Your task to perform on an android device: turn pop-ups on in chrome Image 0: 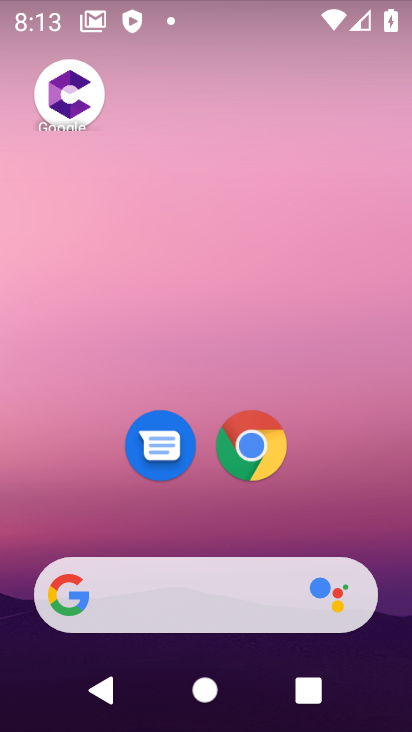
Step 0: click (255, 441)
Your task to perform on an android device: turn pop-ups on in chrome Image 1: 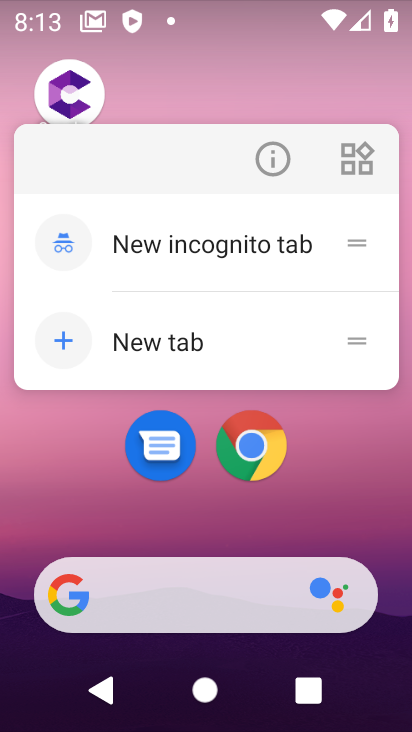
Step 1: click (240, 453)
Your task to perform on an android device: turn pop-ups on in chrome Image 2: 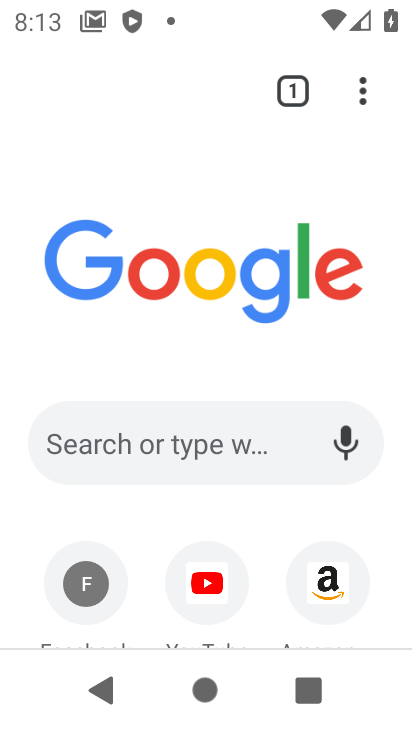
Step 2: click (367, 83)
Your task to perform on an android device: turn pop-ups on in chrome Image 3: 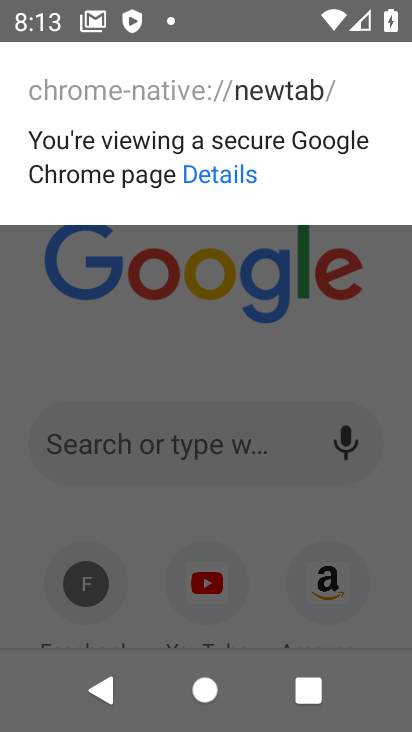
Step 3: click (340, 313)
Your task to perform on an android device: turn pop-ups on in chrome Image 4: 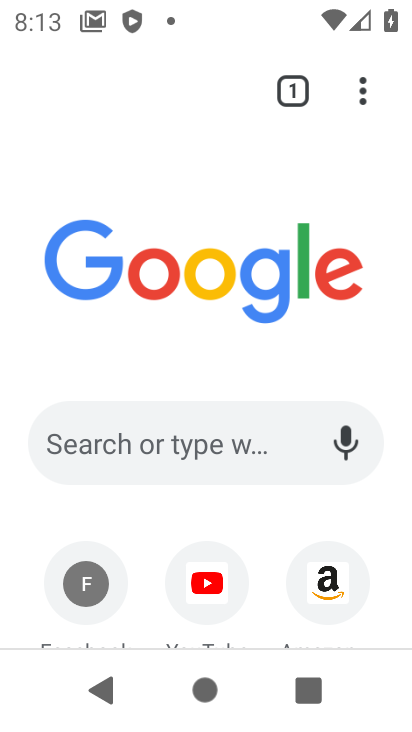
Step 4: click (369, 83)
Your task to perform on an android device: turn pop-ups on in chrome Image 5: 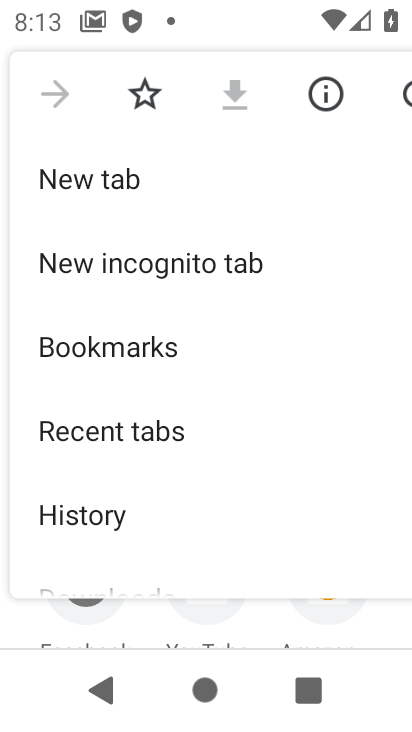
Step 5: drag from (183, 491) to (207, 192)
Your task to perform on an android device: turn pop-ups on in chrome Image 6: 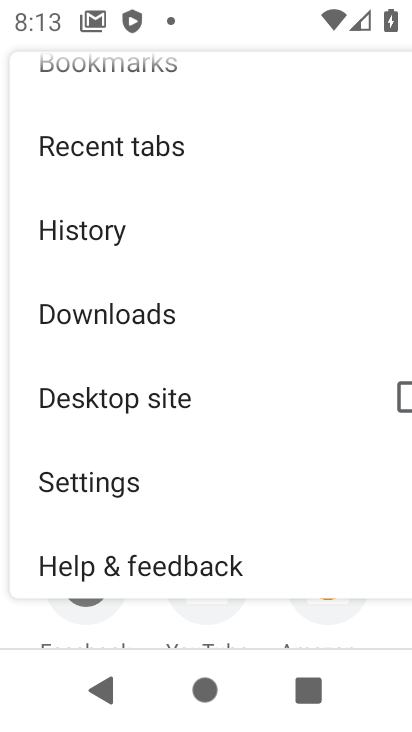
Step 6: click (92, 490)
Your task to perform on an android device: turn pop-ups on in chrome Image 7: 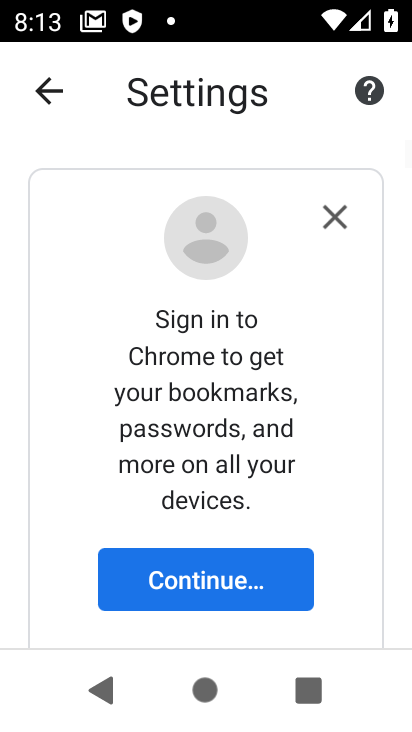
Step 7: click (335, 205)
Your task to perform on an android device: turn pop-ups on in chrome Image 8: 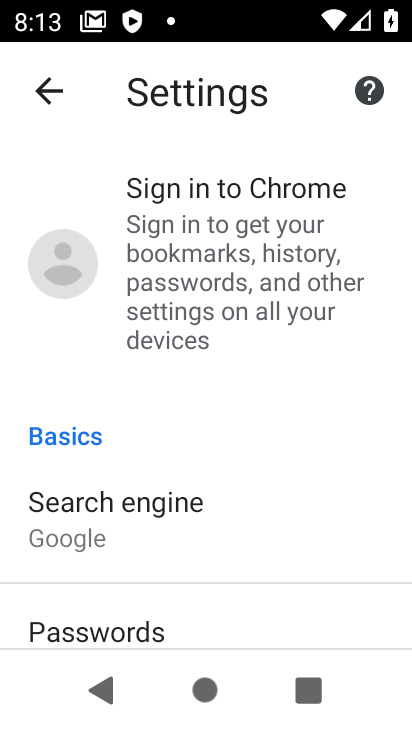
Step 8: drag from (137, 564) to (196, 202)
Your task to perform on an android device: turn pop-ups on in chrome Image 9: 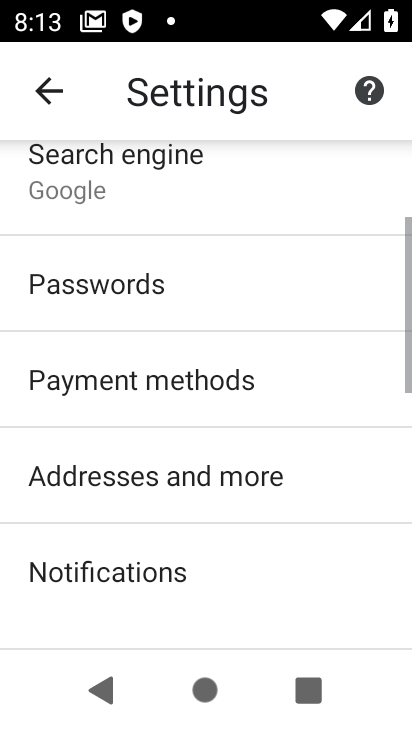
Step 9: drag from (170, 526) to (232, 231)
Your task to perform on an android device: turn pop-ups on in chrome Image 10: 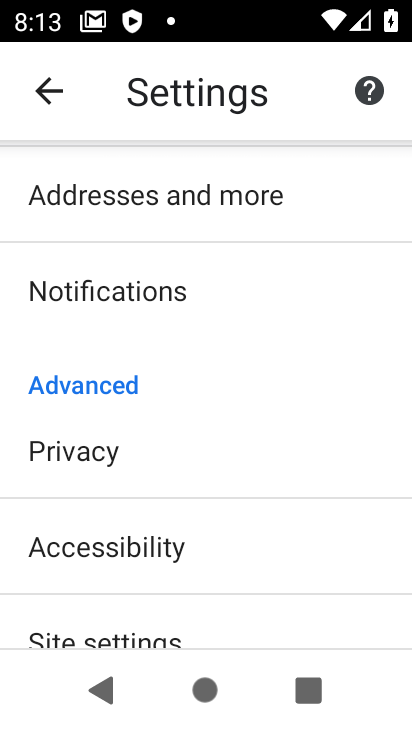
Step 10: drag from (91, 579) to (164, 305)
Your task to perform on an android device: turn pop-ups on in chrome Image 11: 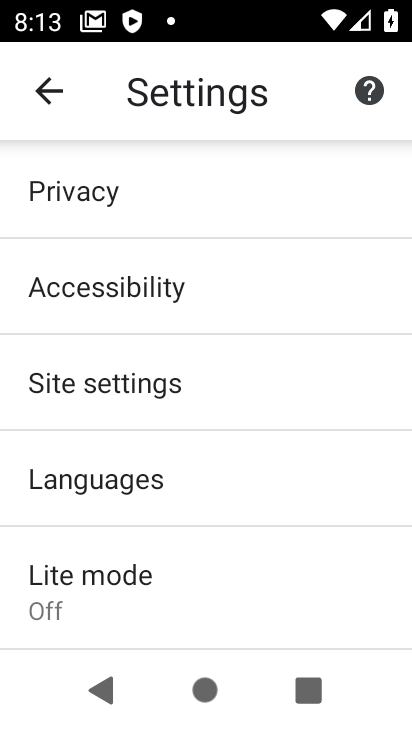
Step 11: click (116, 367)
Your task to perform on an android device: turn pop-ups on in chrome Image 12: 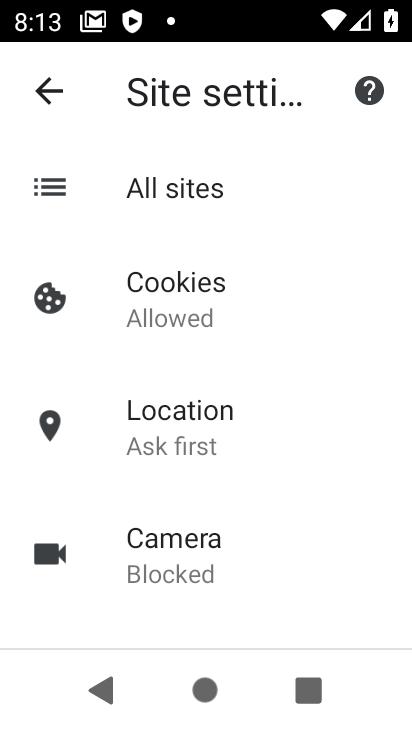
Step 12: drag from (184, 595) to (227, 283)
Your task to perform on an android device: turn pop-ups on in chrome Image 13: 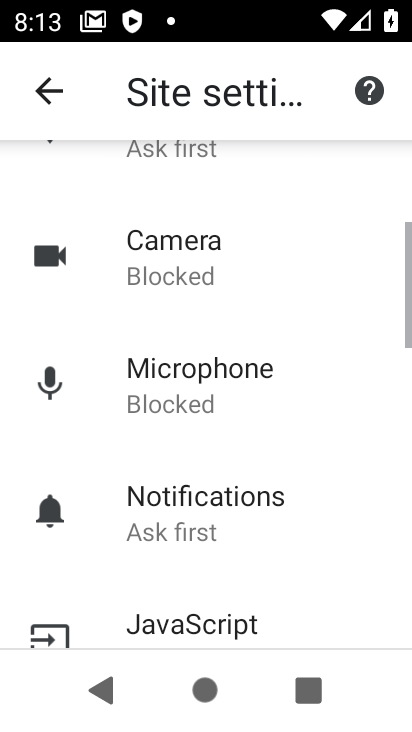
Step 13: drag from (226, 553) to (237, 264)
Your task to perform on an android device: turn pop-ups on in chrome Image 14: 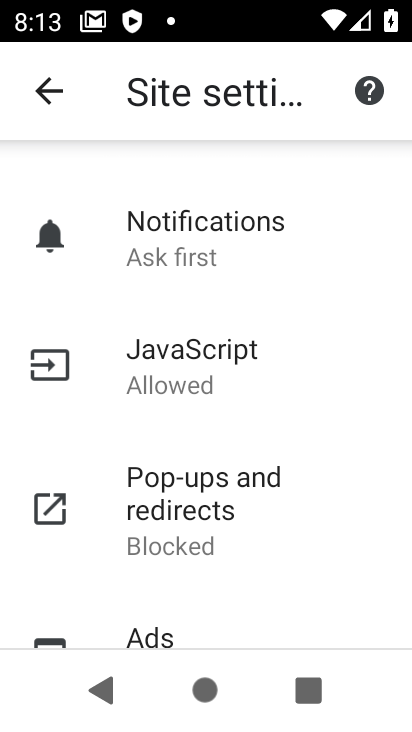
Step 14: click (150, 509)
Your task to perform on an android device: turn pop-ups on in chrome Image 15: 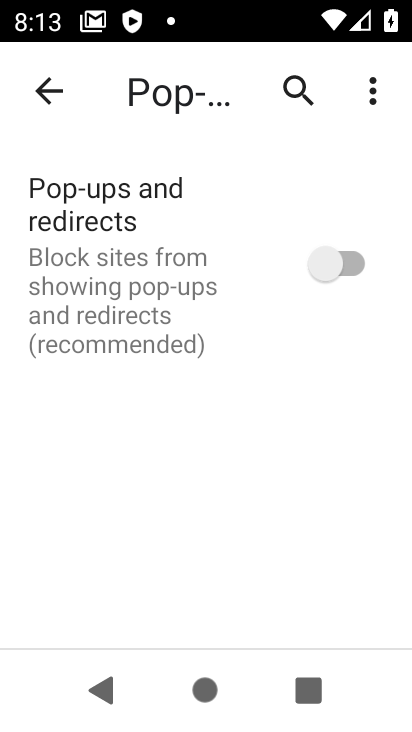
Step 15: click (334, 255)
Your task to perform on an android device: turn pop-ups on in chrome Image 16: 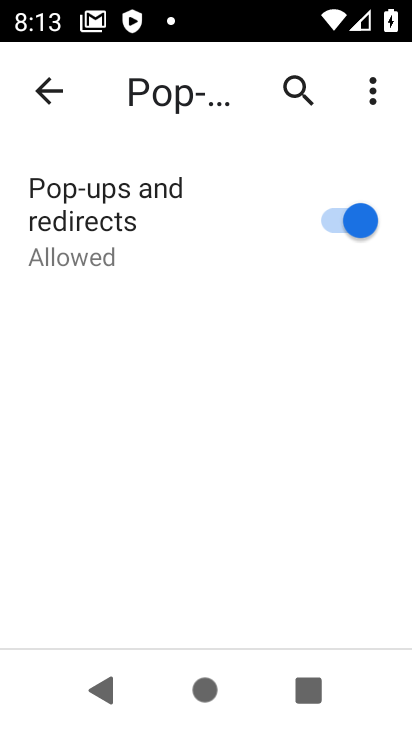
Step 16: task complete